Your task to perform on an android device: Show me the best basketball shoes on Nike.com Image 0: 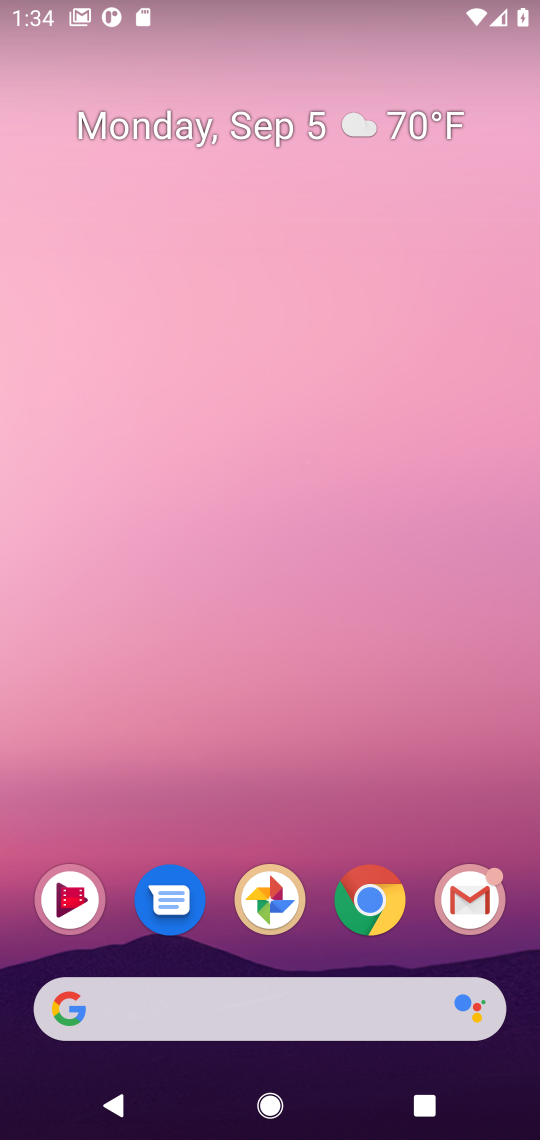
Step 0: click (332, 240)
Your task to perform on an android device: Show me the best basketball shoes on Nike.com Image 1: 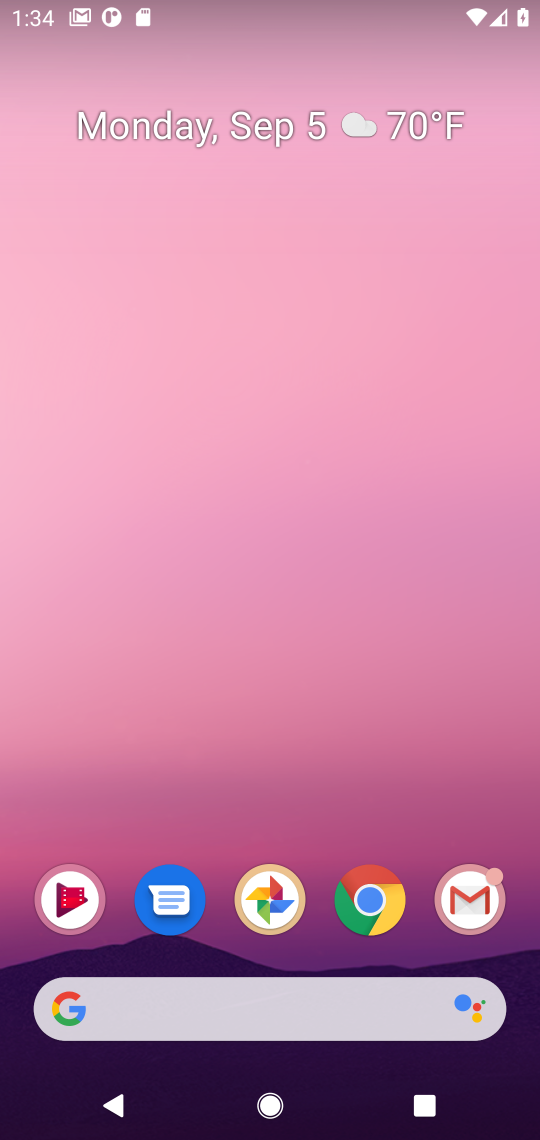
Step 1: click (370, 910)
Your task to perform on an android device: Show me the best basketball shoes on Nike.com Image 2: 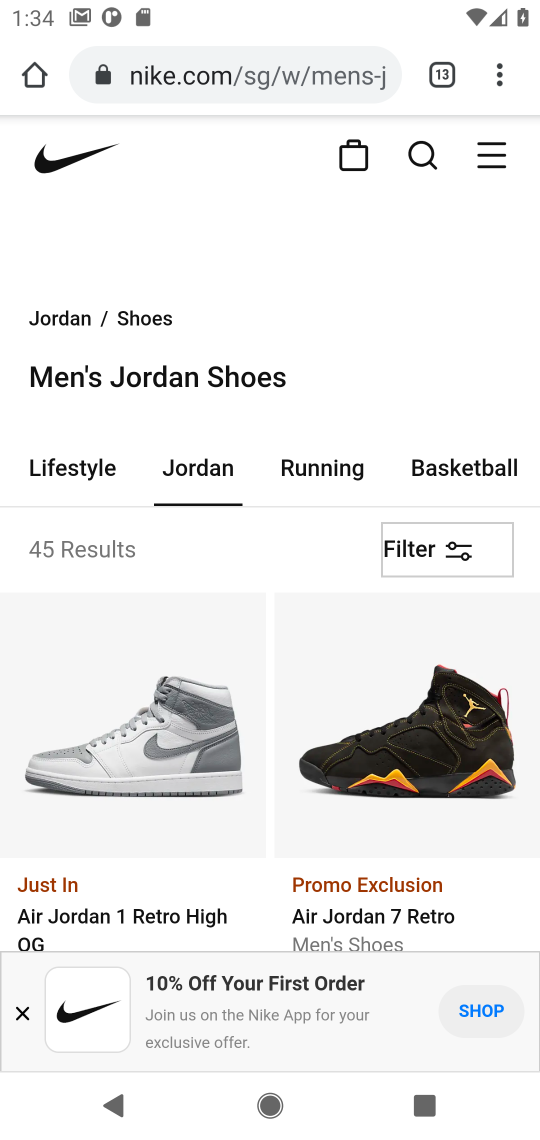
Step 2: click (421, 151)
Your task to perform on an android device: Show me the best basketball shoes on Nike.com Image 3: 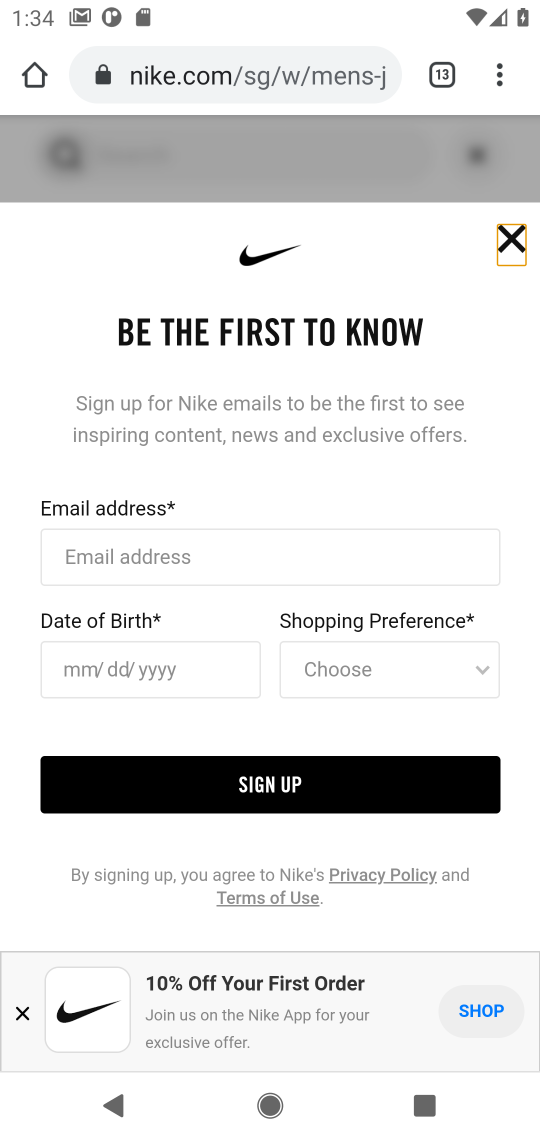
Step 3: type "basketball shoes"
Your task to perform on an android device: Show me the best basketball shoes on Nike.com Image 4: 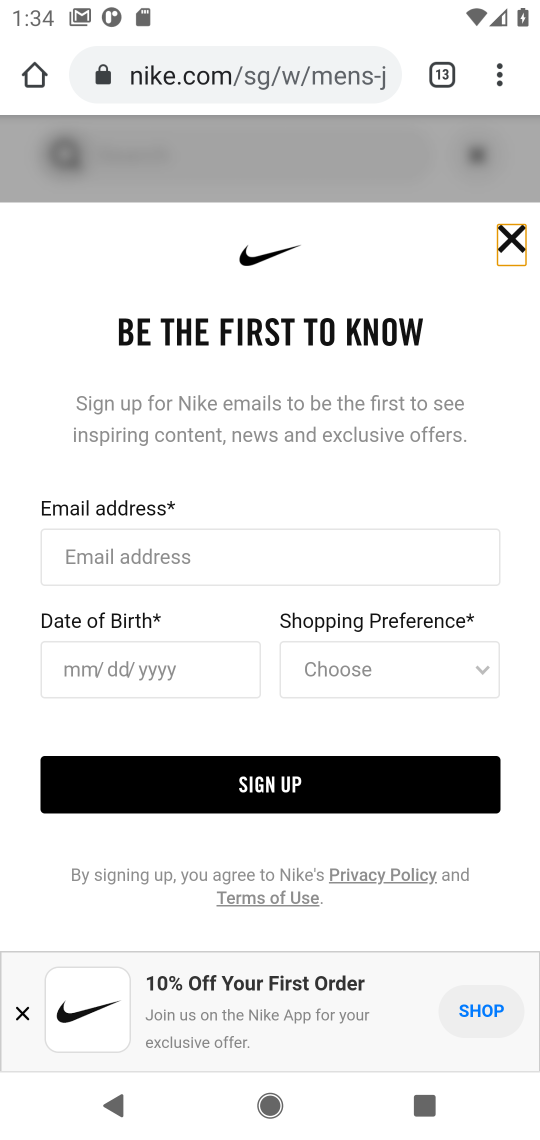
Step 4: click (504, 233)
Your task to perform on an android device: Show me the best basketball shoes on Nike.com Image 5: 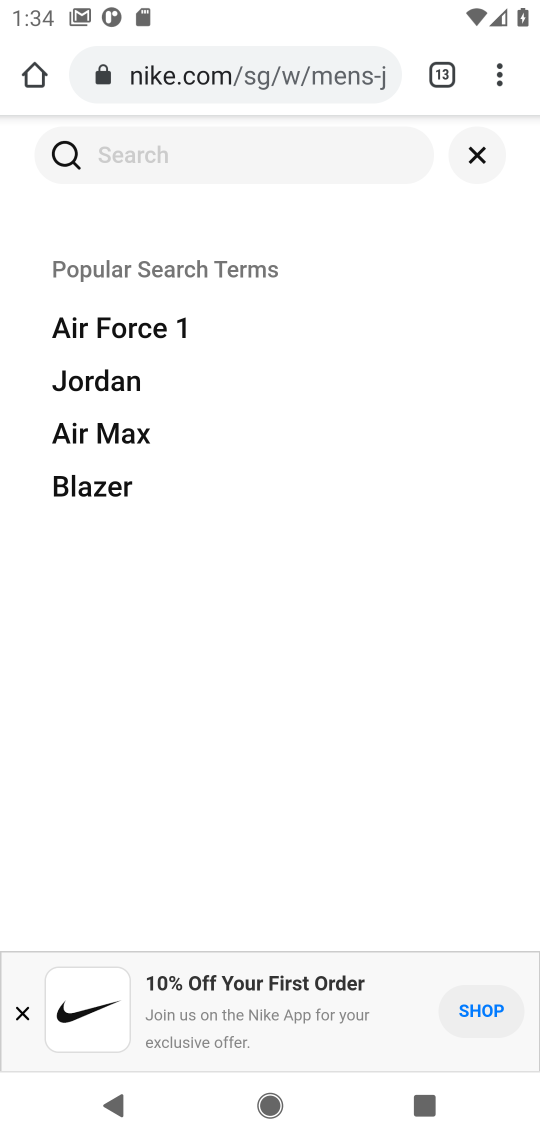
Step 5: click (145, 144)
Your task to perform on an android device: Show me the best basketball shoes on Nike.com Image 6: 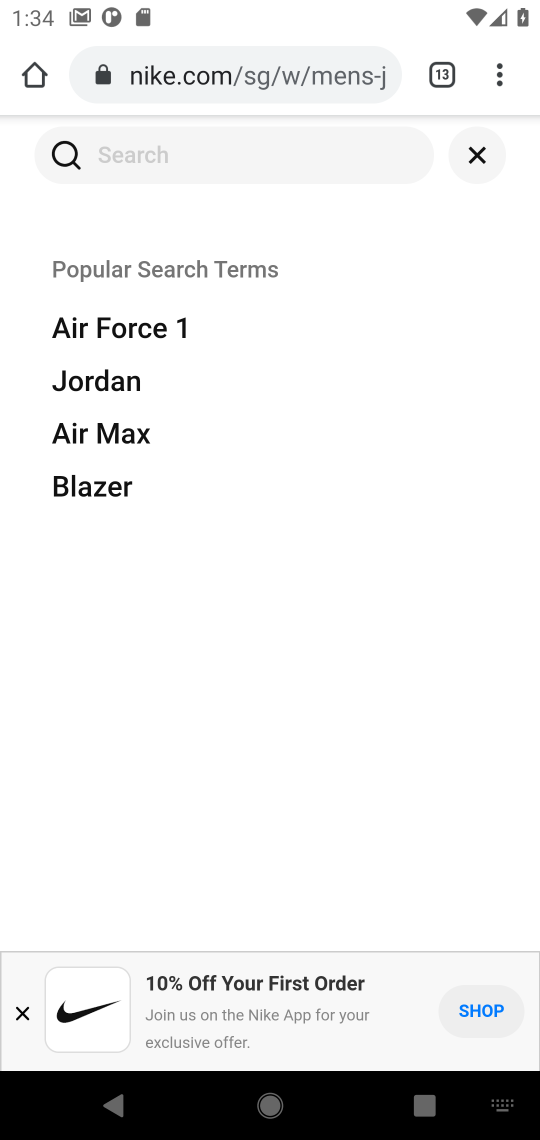
Step 6: type "basketball shoes"
Your task to perform on an android device: Show me the best basketball shoes on Nike.com Image 7: 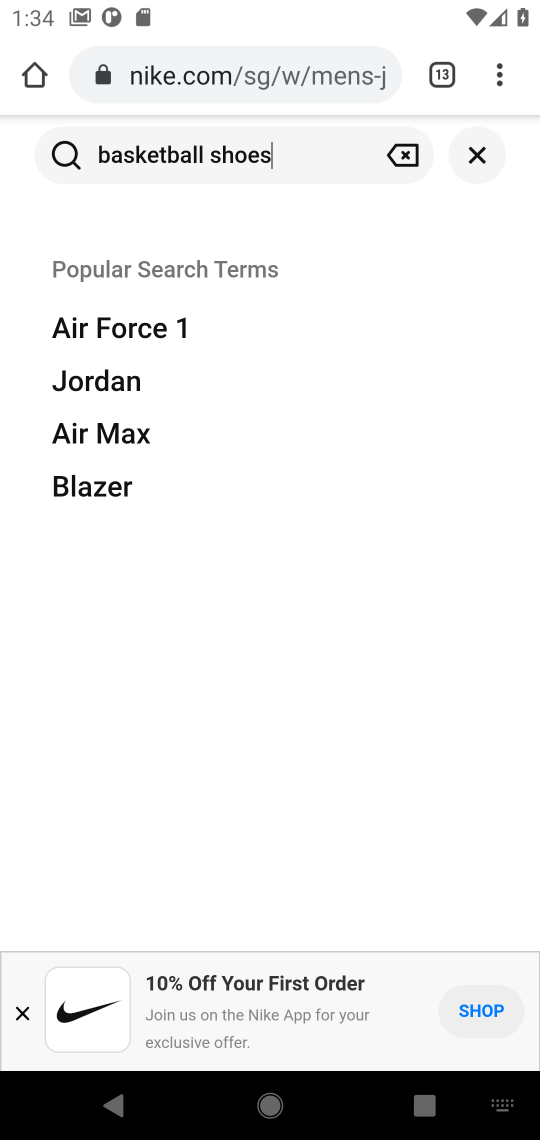
Step 7: type ""
Your task to perform on an android device: Show me the best basketball shoes on Nike.com Image 8: 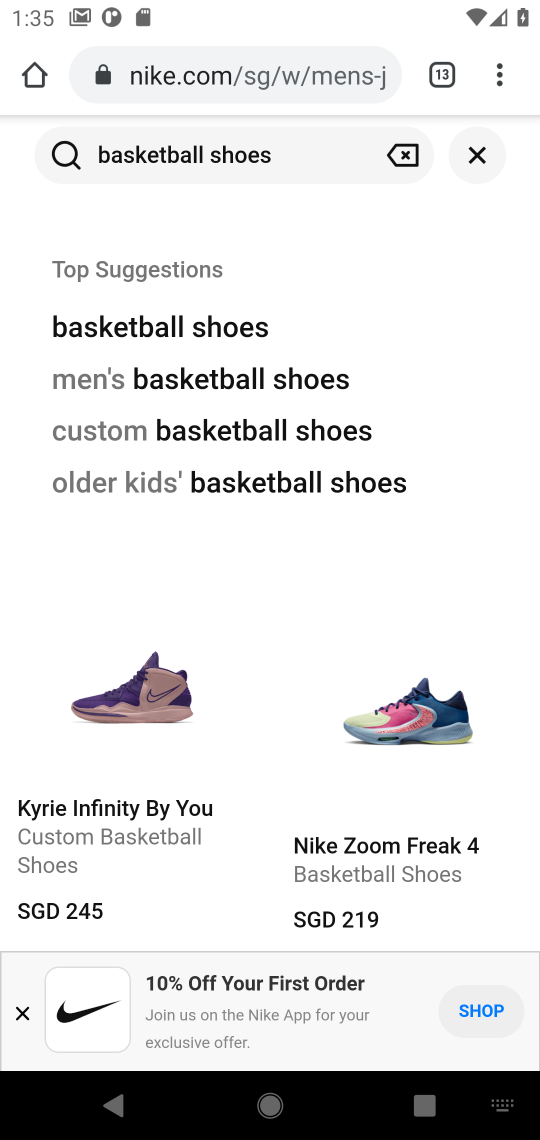
Step 8: click (198, 321)
Your task to perform on an android device: Show me the best basketball shoes on Nike.com Image 9: 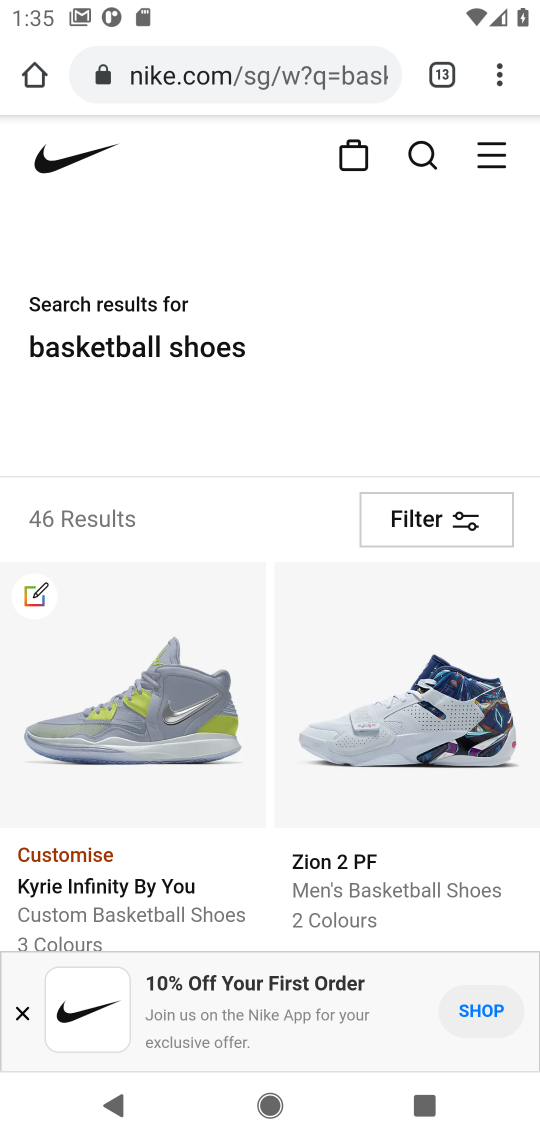
Step 9: task complete